Your task to perform on an android device: Open settings Image 0: 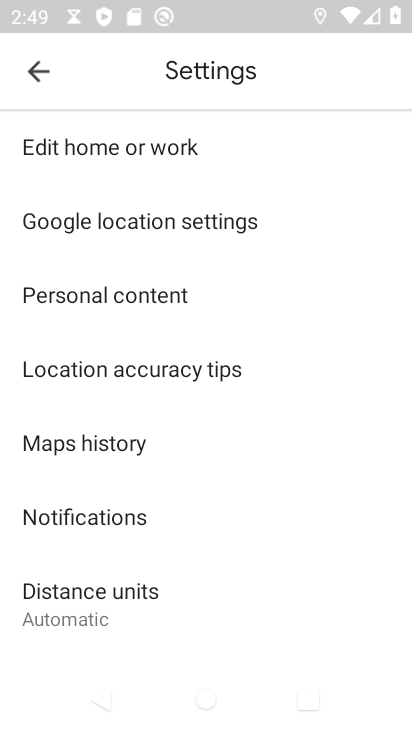
Step 0: press home button
Your task to perform on an android device: Open settings Image 1: 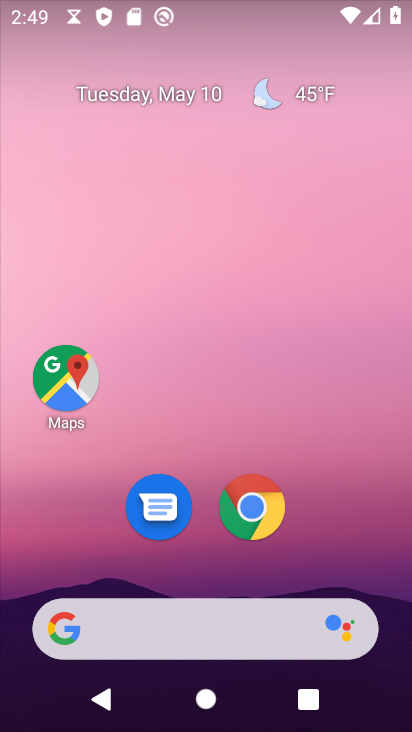
Step 1: drag from (359, 504) to (68, 119)
Your task to perform on an android device: Open settings Image 2: 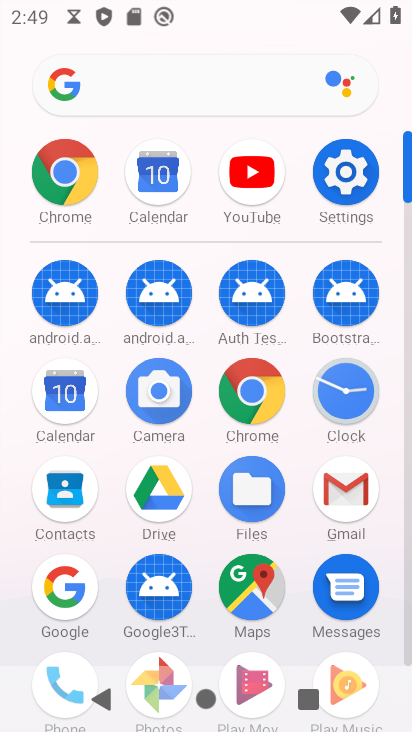
Step 2: click (349, 178)
Your task to perform on an android device: Open settings Image 3: 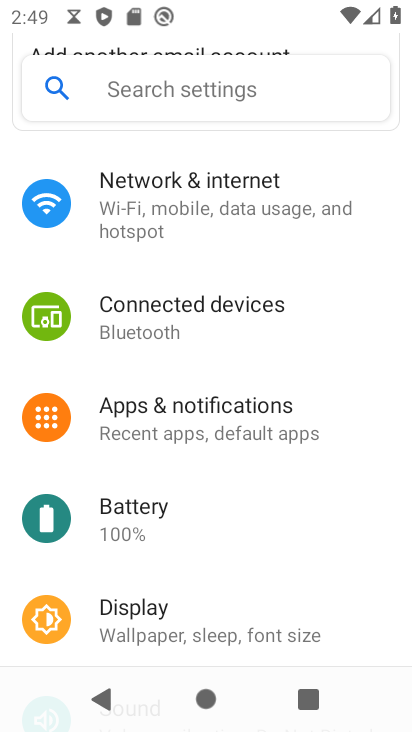
Step 3: task complete